Your task to perform on an android device: install app "Life360: Find Family & Friends" Image 0: 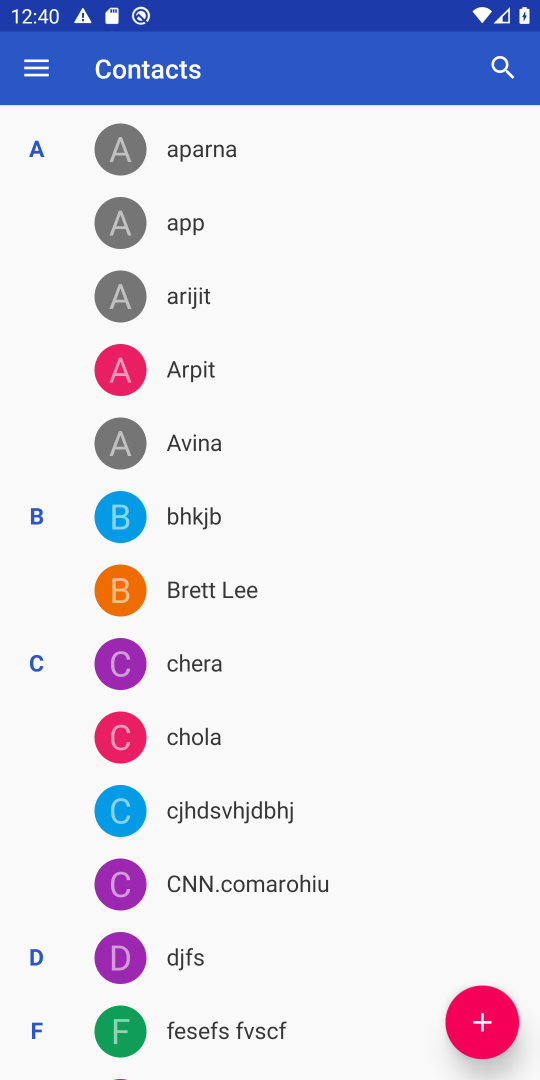
Step 0: press back button
Your task to perform on an android device: install app "Life360: Find Family & Friends" Image 1: 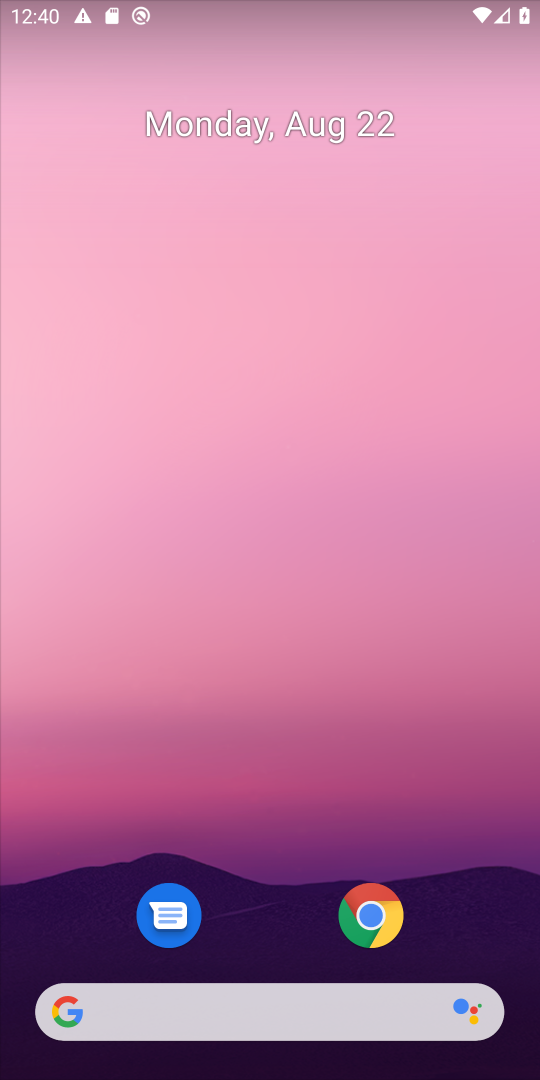
Step 1: drag from (266, 963) to (167, 110)
Your task to perform on an android device: install app "Life360: Find Family & Friends" Image 2: 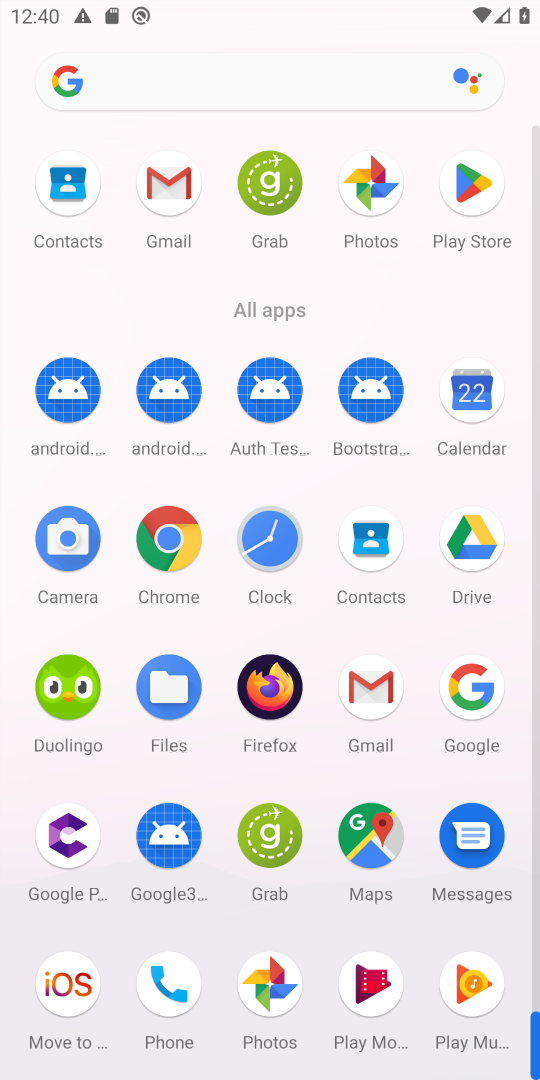
Step 2: drag from (325, 915) to (238, 274)
Your task to perform on an android device: install app "Life360: Find Family & Friends" Image 3: 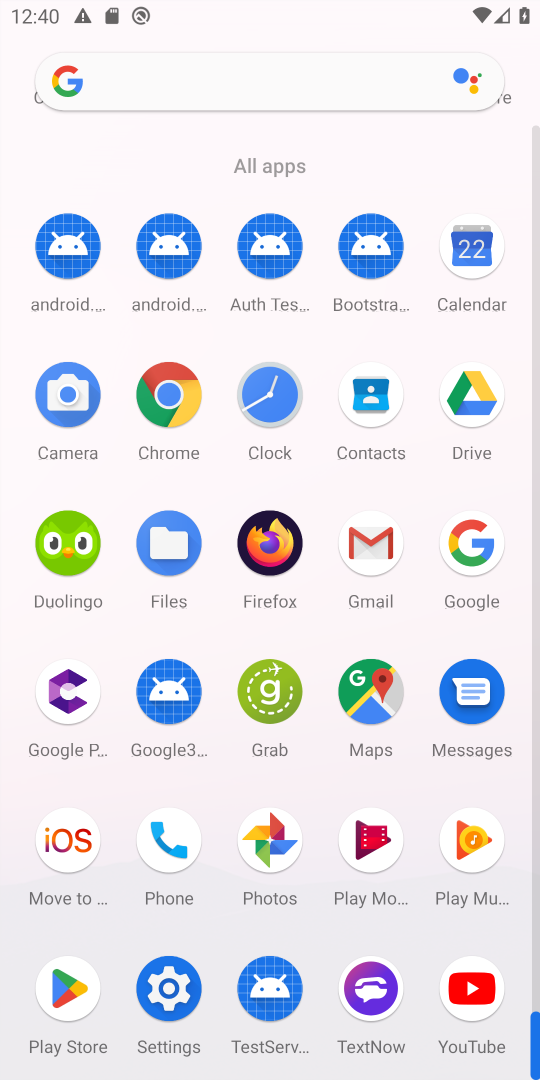
Step 3: click (69, 998)
Your task to perform on an android device: install app "Life360: Find Family & Friends" Image 4: 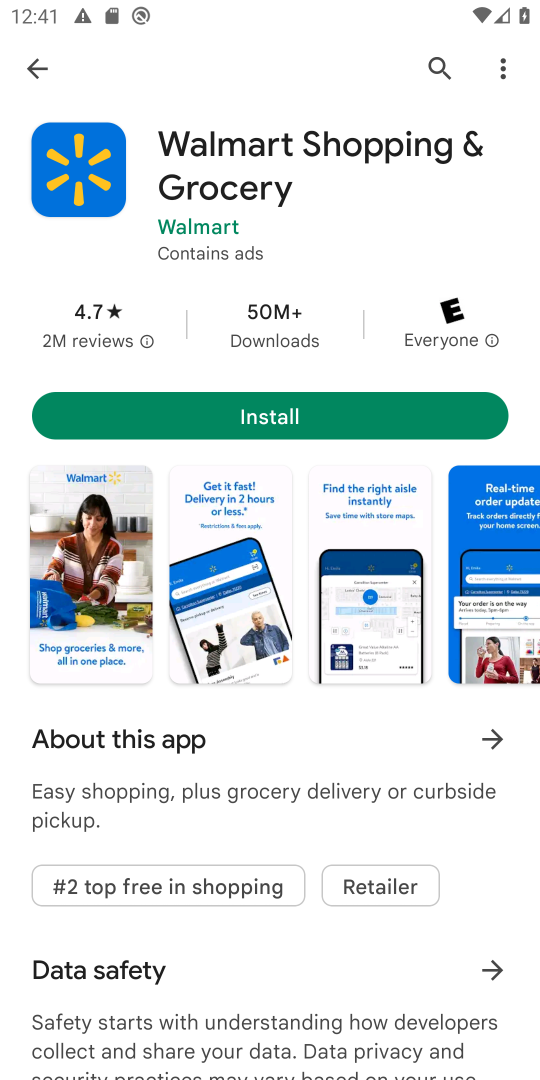
Step 4: click (40, 65)
Your task to perform on an android device: install app "Life360: Find Family & Friends" Image 5: 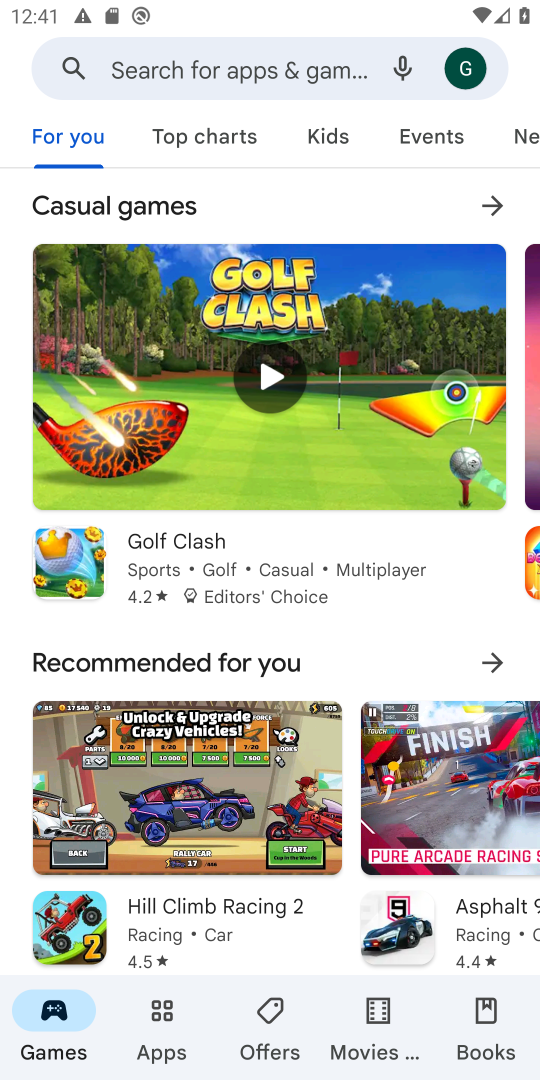
Step 5: click (171, 70)
Your task to perform on an android device: install app "Life360: Find Family & Friends" Image 6: 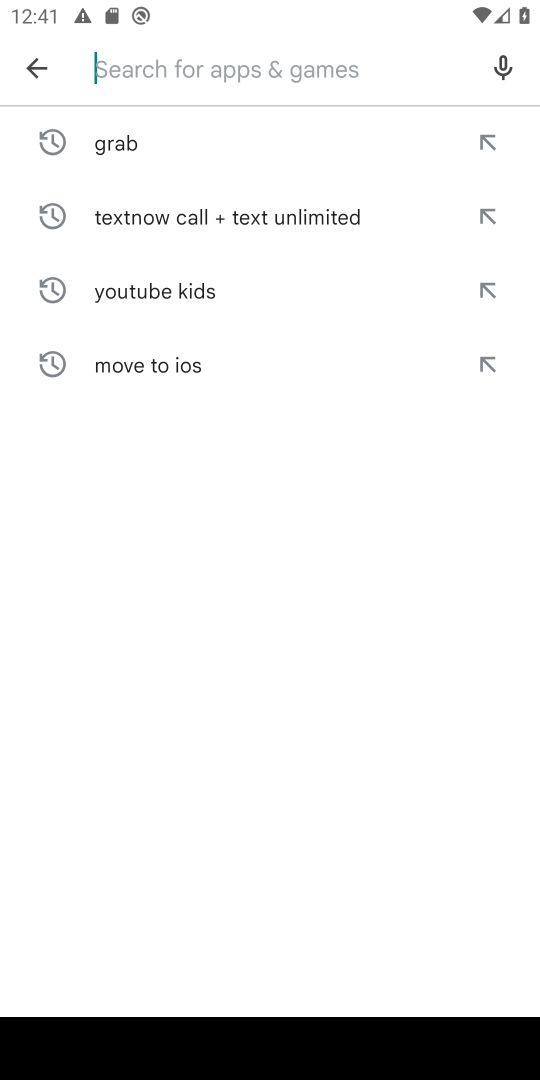
Step 6: type "Life360"
Your task to perform on an android device: install app "Life360: Find Family & Friends" Image 7: 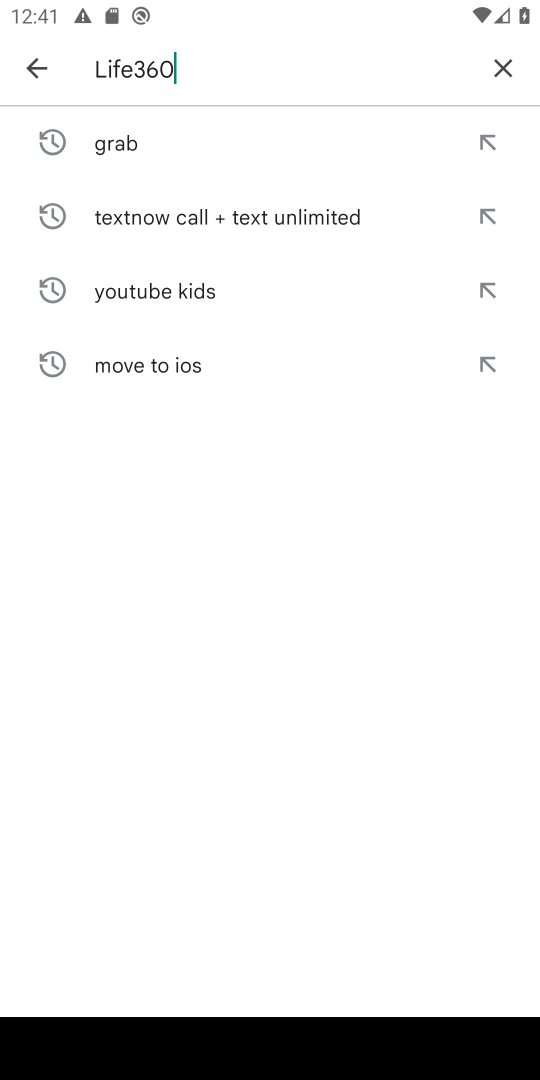
Step 7: type ""
Your task to perform on an android device: install app "Life360: Find Family & Friends" Image 8: 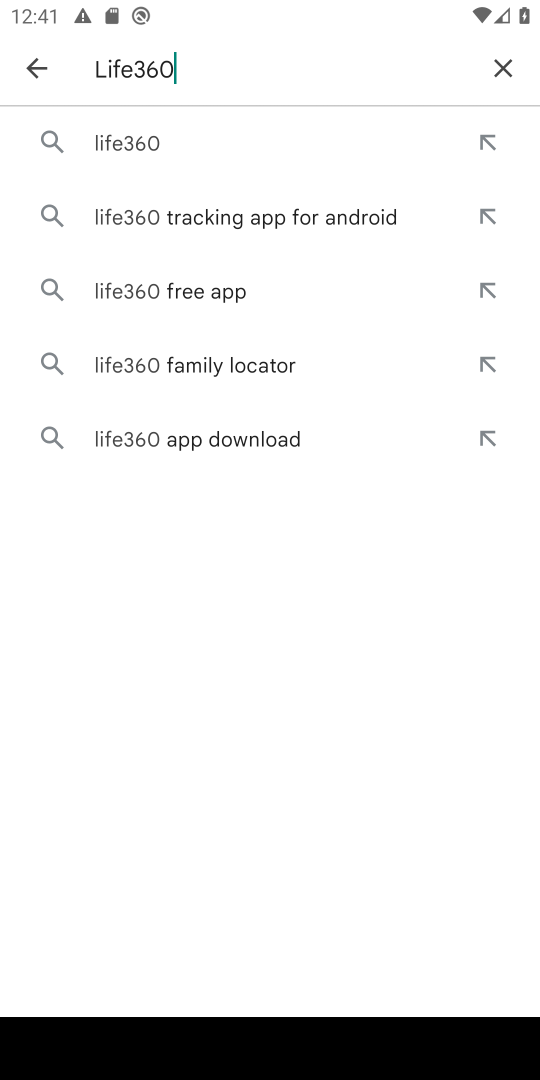
Step 8: press home button
Your task to perform on an android device: install app "Life360: Find Family & Friends" Image 9: 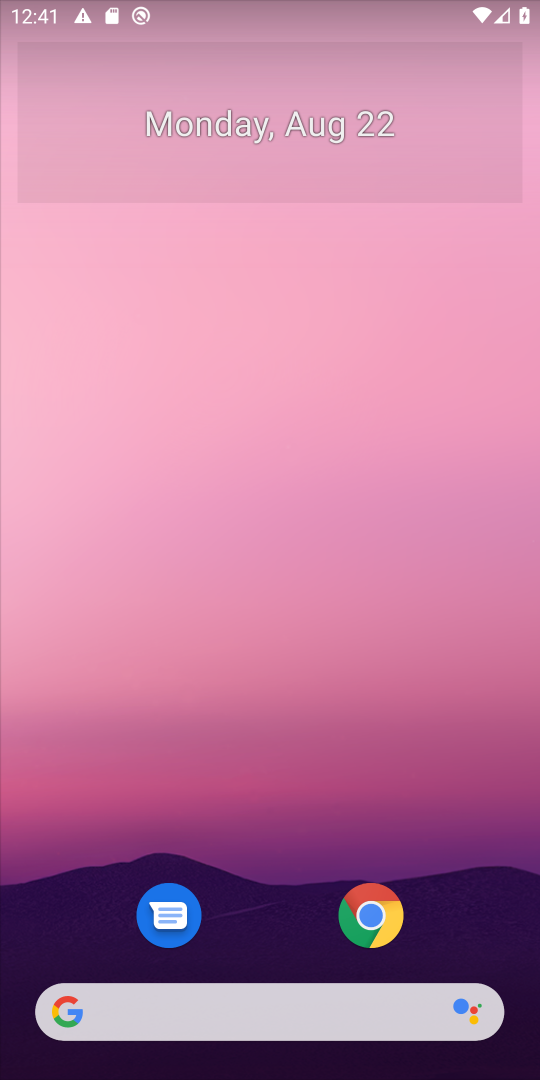
Step 9: drag from (238, 874) to (269, 115)
Your task to perform on an android device: install app "Life360: Find Family & Friends" Image 10: 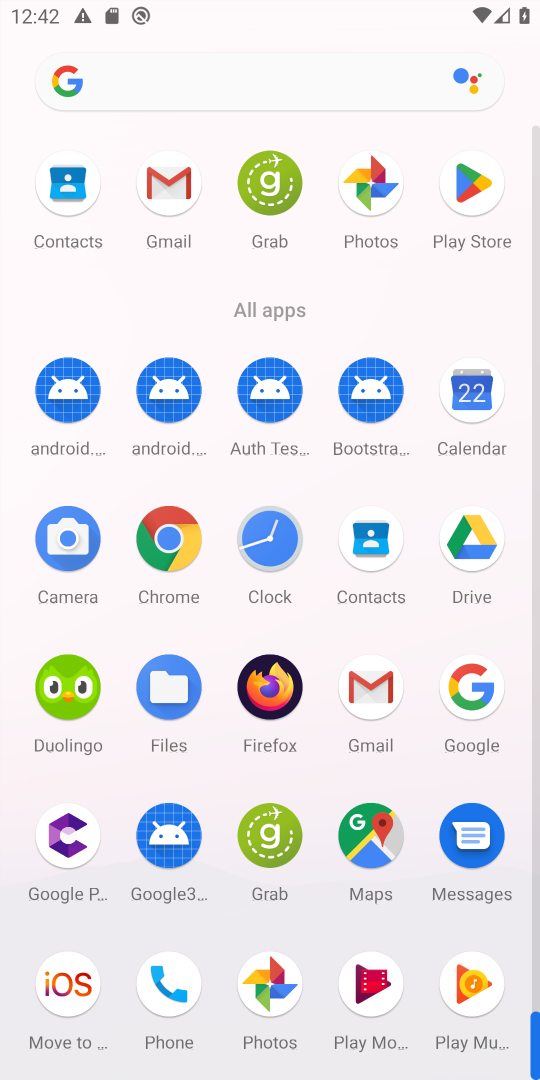
Step 10: click (478, 190)
Your task to perform on an android device: install app "Life360: Find Family & Friends" Image 11: 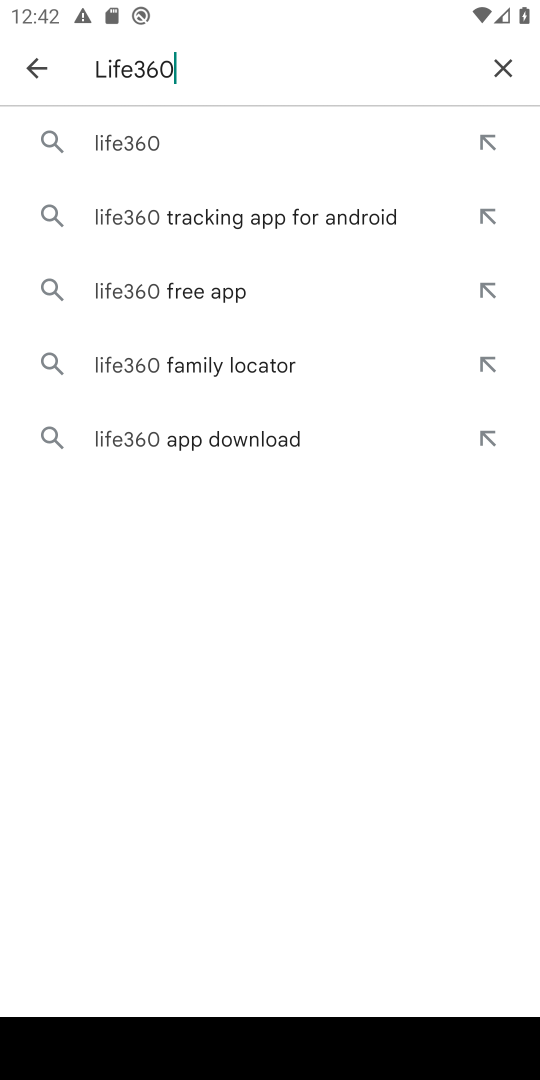
Step 11: click (114, 129)
Your task to perform on an android device: install app "Life360: Find Family & Friends" Image 12: 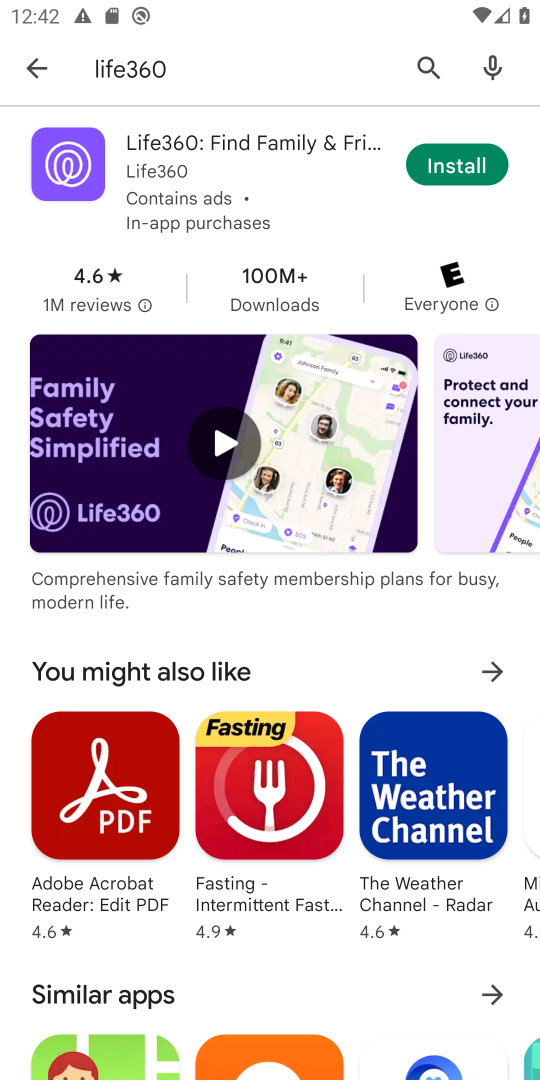
Step 12: click (441, 171)
Your task to perform on an android device: install app "Life360: Find Family & Friends" Image 13: 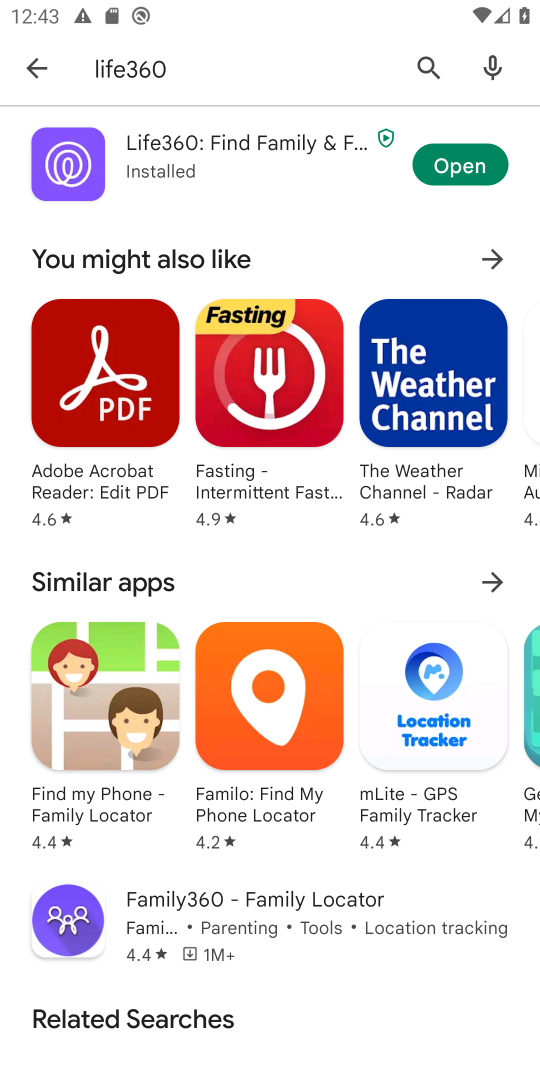
Step 13: task complete